Your task to perform on an android device: Open the Play Movies app and select the watchlist tab. Image 0: 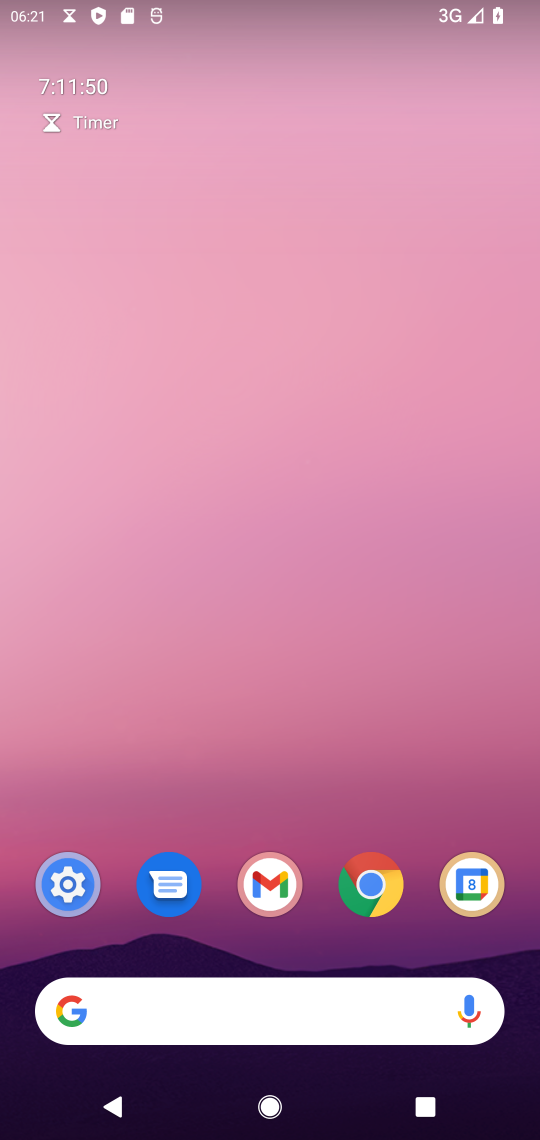
Step 0: drag from (320, 814) to (256, 105)
Your task to perform on an android device: Open the Play Movies app and select the watchlist tab. Image 1: 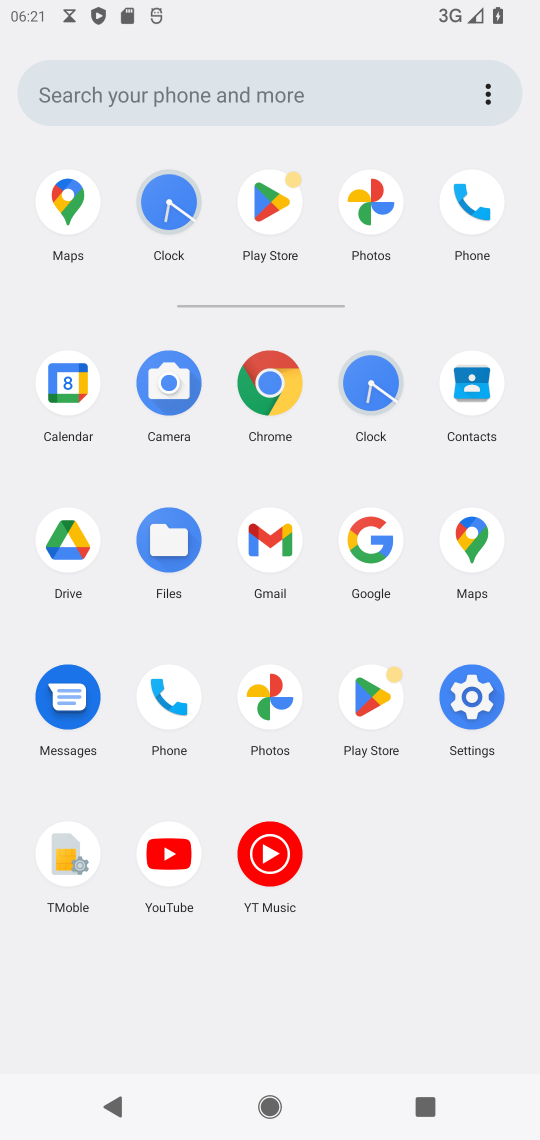
Step 1: task complete